Your task to perform on an android device: turn off airplane mode Image 0: 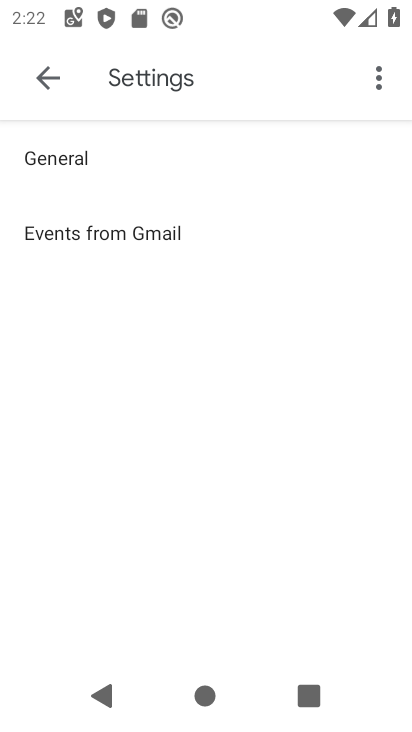
Step 0: press home button
Your task to perform on an android device: turn off airplane mode Image 1: 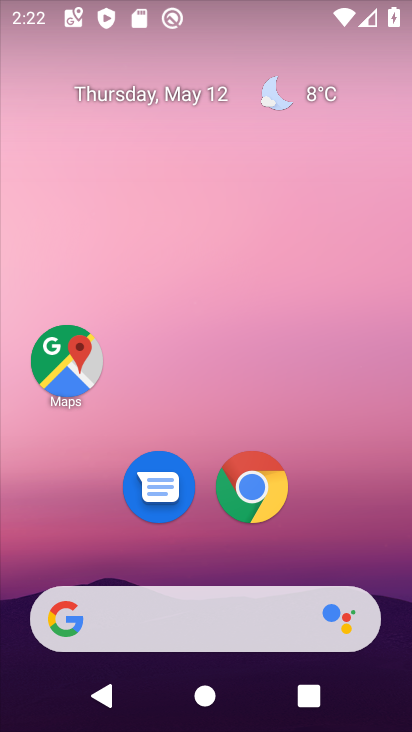
Step 1: drag from (202, 468) to (260, 41)
Your task to perform on an android device: turn off airplane mode Image 2: 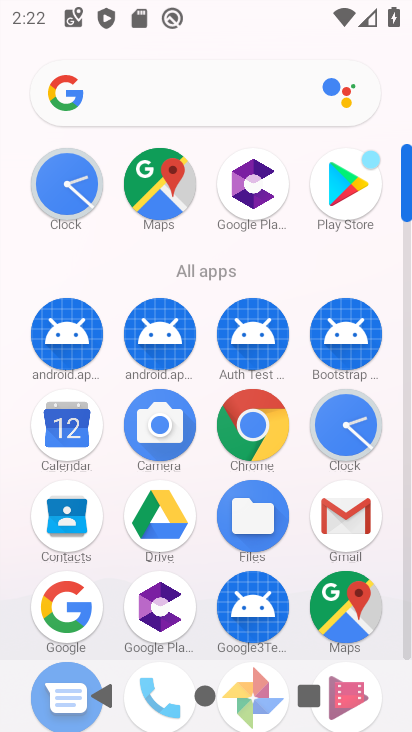
Step 2: drag from (208, 522) to (262, 26)
Your task to perform on an android device: turn off airplane mode Image 3: 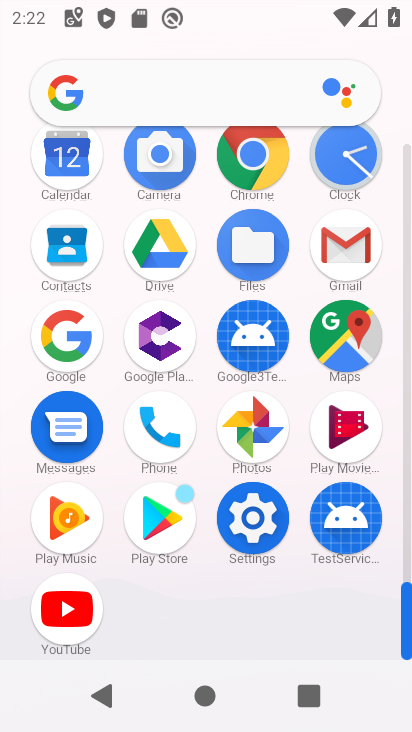
Step 3: click (246, 504)
Your task to perform on an android device: turn off airplane mode Image 4: 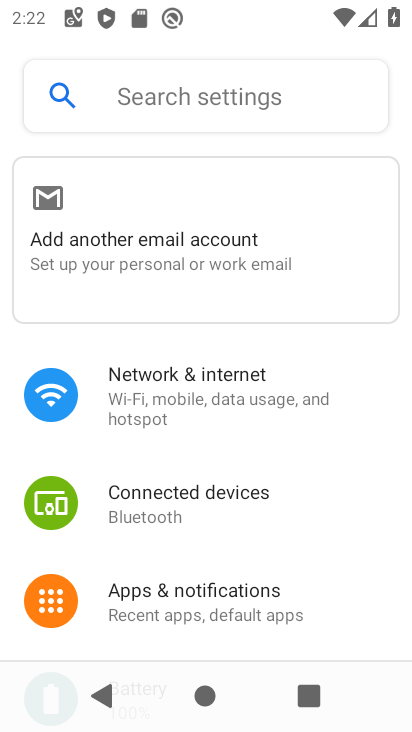
Step 4: click (178, 397)
Your task to perform on an android device: turn off airplane mode Image 5: 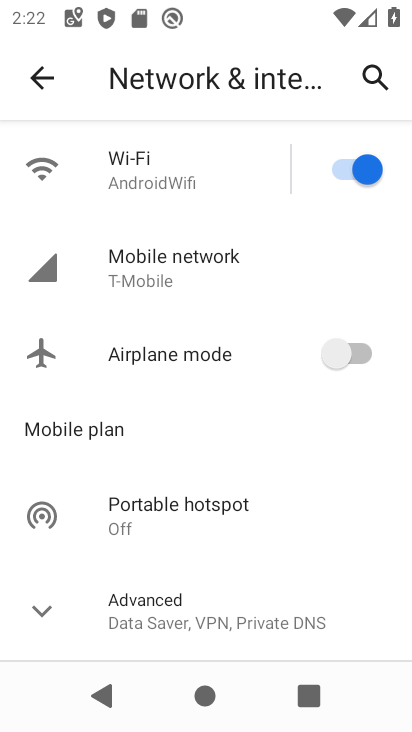
Step 5: task complete